Your task to perform on an android device: show emergency info Image 0: 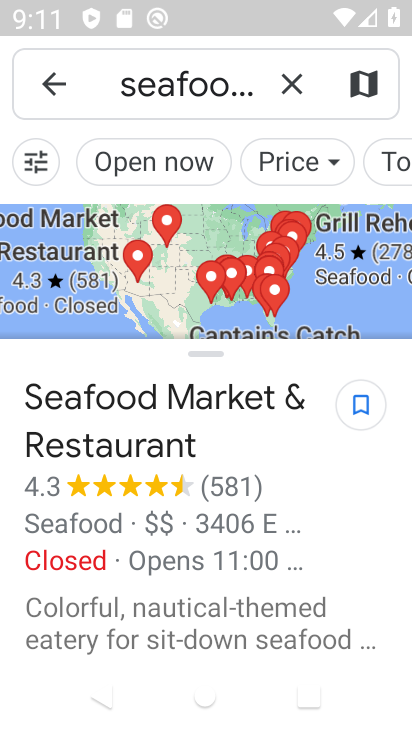
Step 0: press home button
Your task to perform on an android device: show emergency info Image 1: 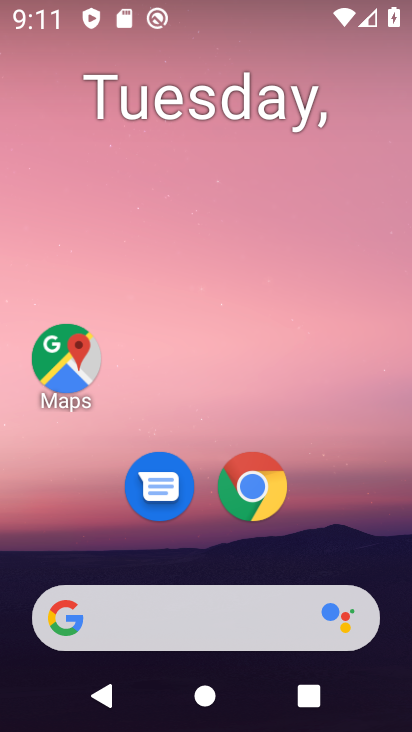
Step 1: drag from (372, 535) to (371, 141)
Your task to perform on an android device: show emergency info Image 2: 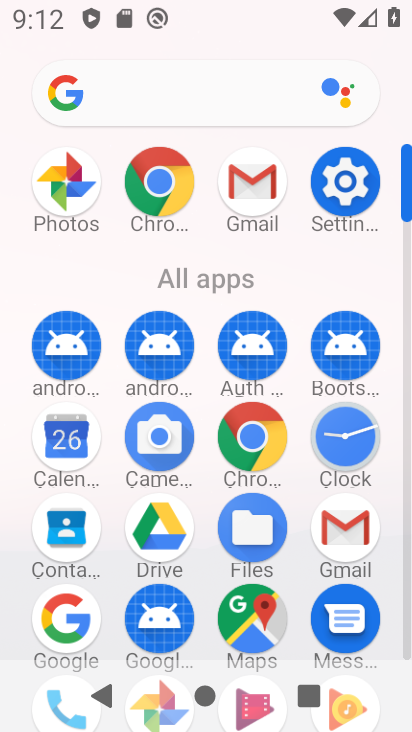
Step 2: click (341, 188)
Your task to perform on an android device: show emergency info Image 3: 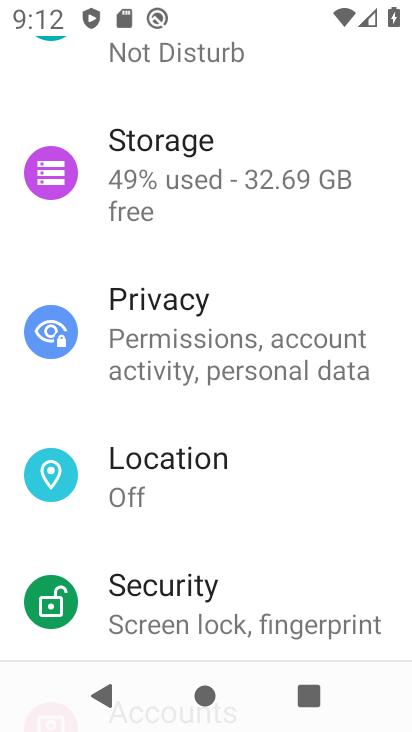
Step 3: drag from (345, 447) to (348, 397)
Your task to perform on an android device: show emergency info Image 4: 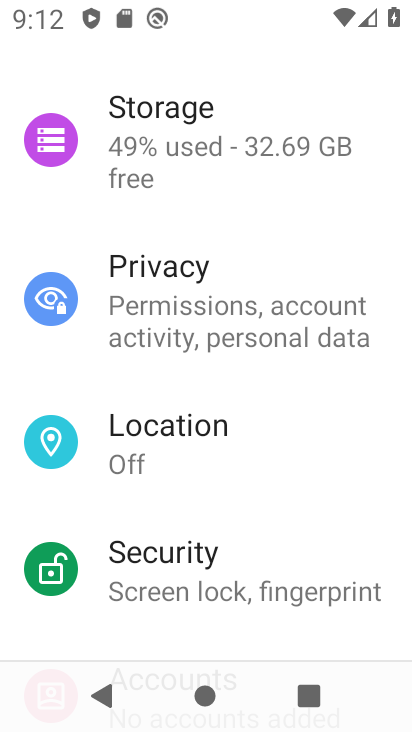
Step 4: drag from (343, 490) to (343, 412)
Your task to perform on an android device: show emergency info Image 5: 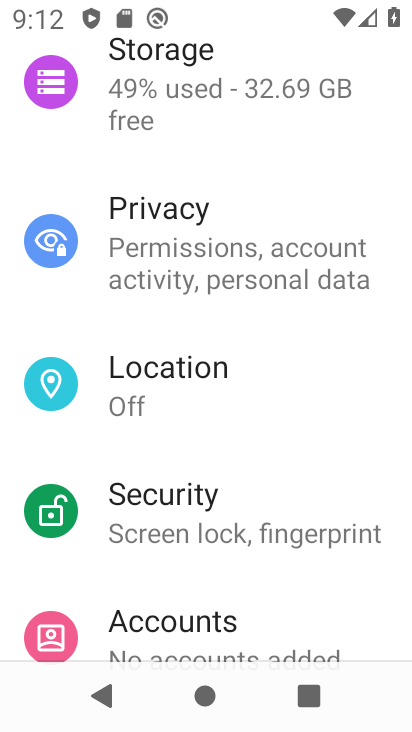
Step 5: drag from (318, 513) to (316, 420)
Your task to perform on an android device: show emergency info Image 6: 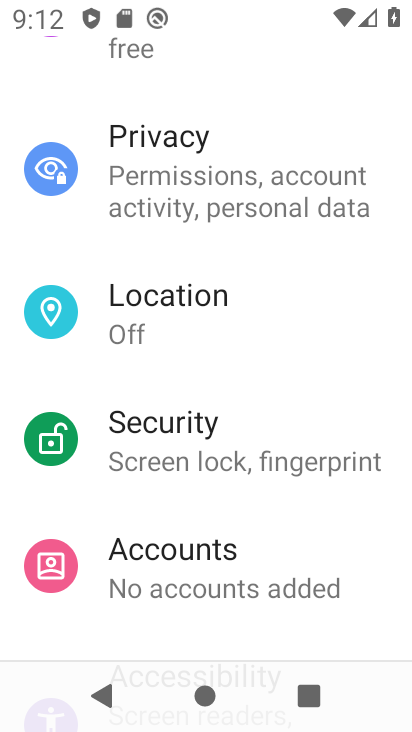
Step 6: drag from (312, 542) to (316, 441)
Your task to perform on an android device: show emergency info Image 7: 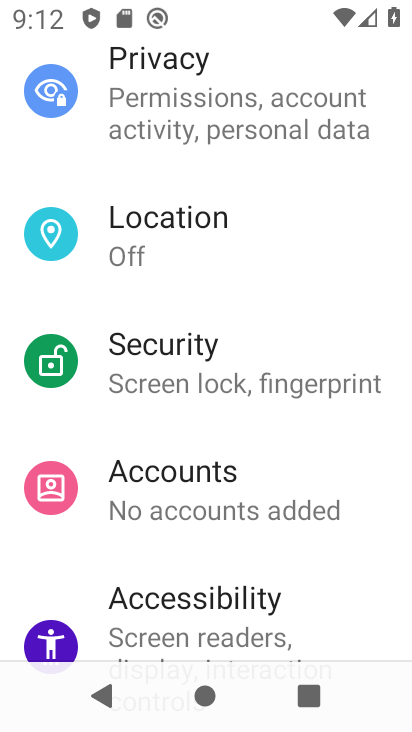
Step 7: drag from (330, 581) to (334, 496)
Your task to perform on an android device: show emergency info Image 8: 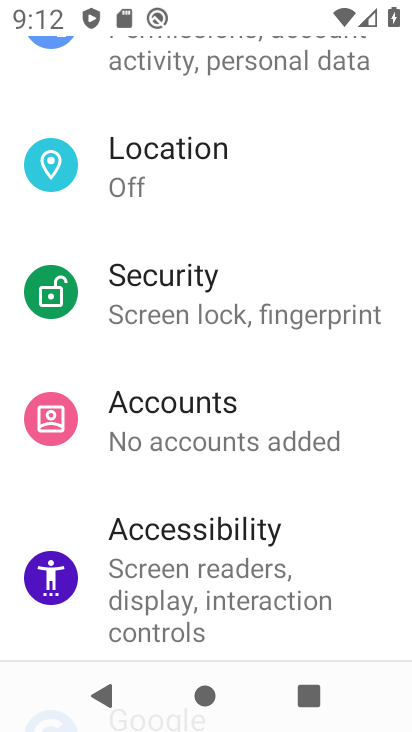
Step 8: drag from (329, 571) to (329, 496)
Your task to perform on an android device: show emergency info Image 9: 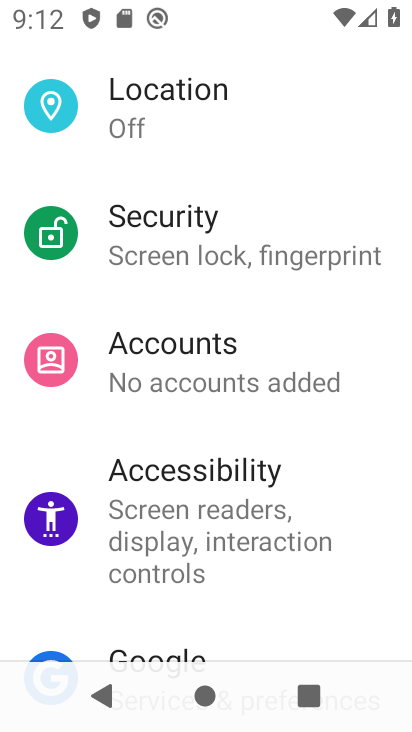
Step 9: drag from (339, 605) to (339, 495)
Your task to perform on an android device: show emergency info Image 10: 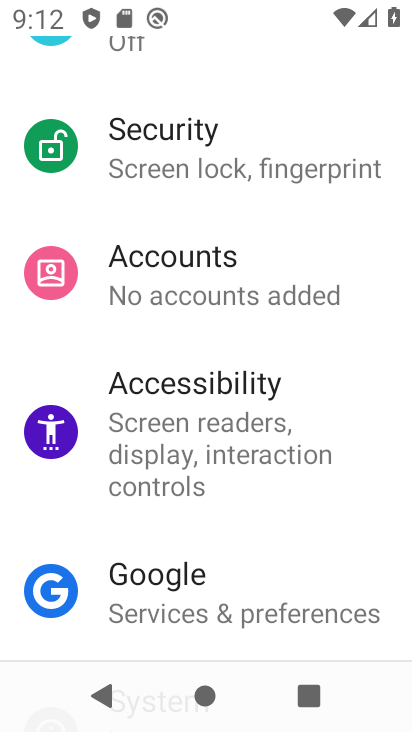
Step 10: drag from (326, 574) to (323, 497)
Your task to perform on an android device: show emergency info Image 11: 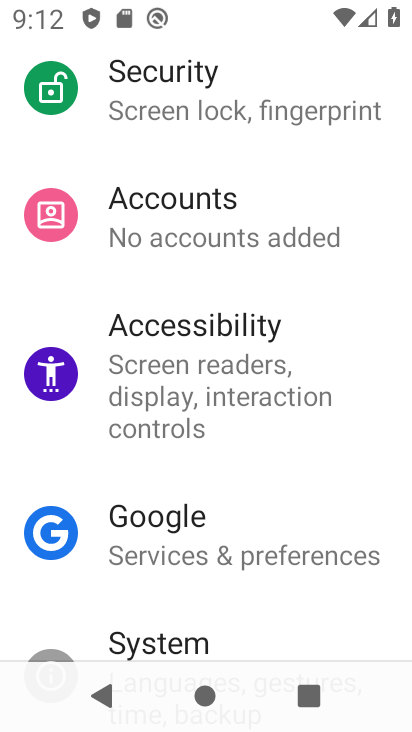
Step 11: drag from (313, 569) to (313, 510)
Your task to perform on an android device: show emergency info Image 12: 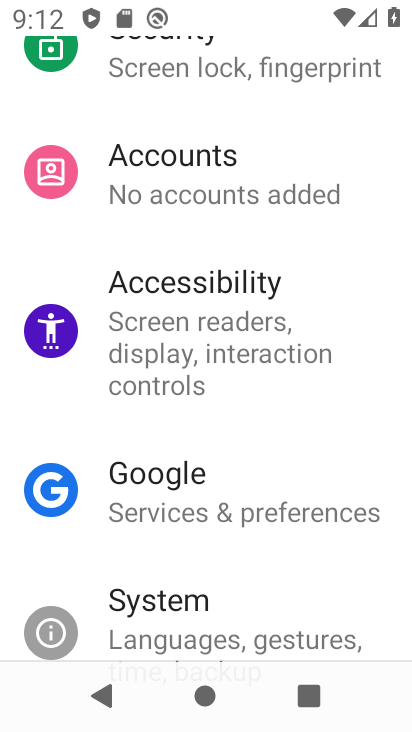
Step 12: drag from (315, 579) to (321, 345)
Your task to perform on an android device: show emergency info Image 13: 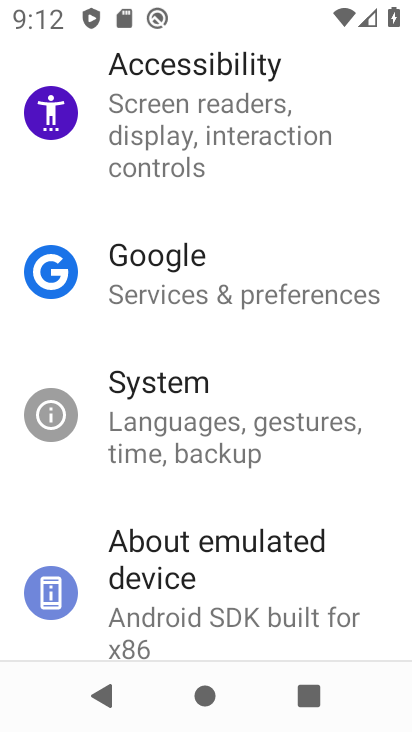
Step 13: click (310, 573)
Your task to perform on an android device: show emergency info Image 14: 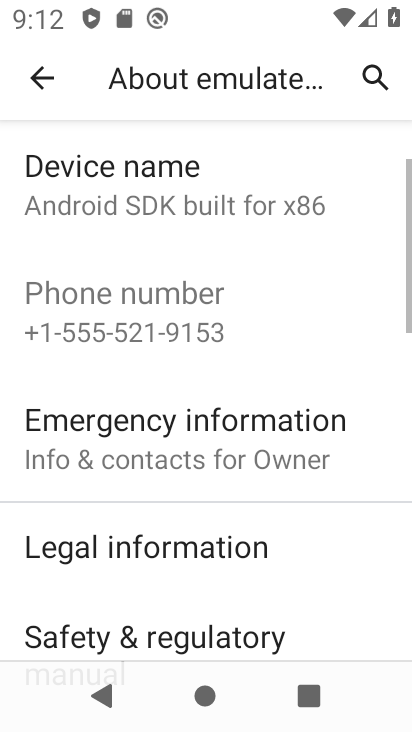
Step 14: click (335, 469)
Your task to perform on an android device: show emergency info Image 15: 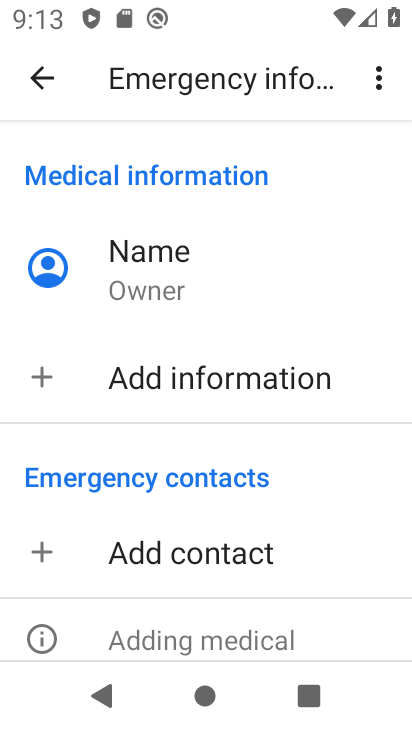
Step 15: task complete